Your task to perform on an android device: Open Yahoo.com Image 0: 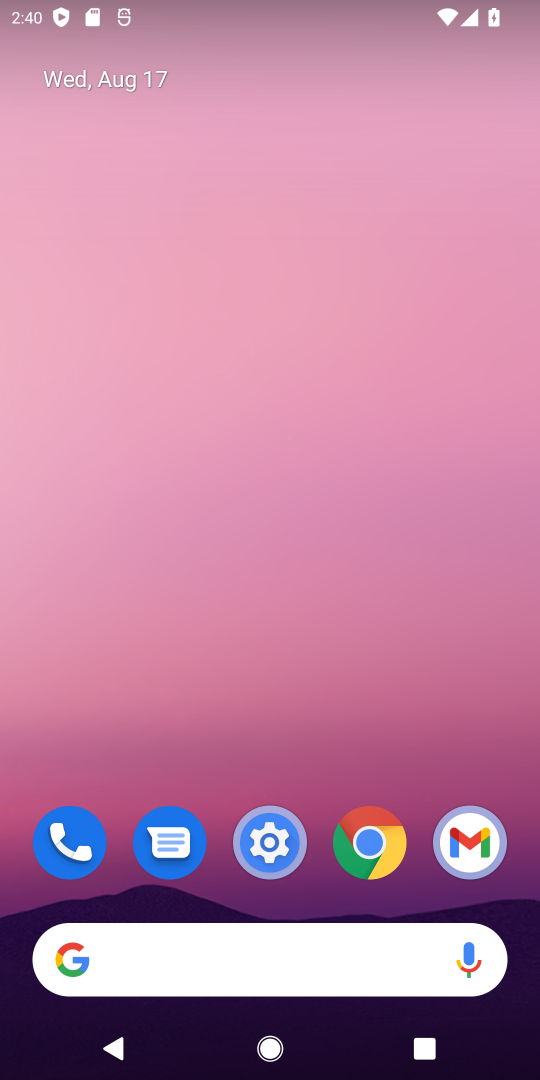
Step 0: drag from (515, 817) to (245, 44)
Your task to perform on an android device: Open Yahoo.com Image 1: 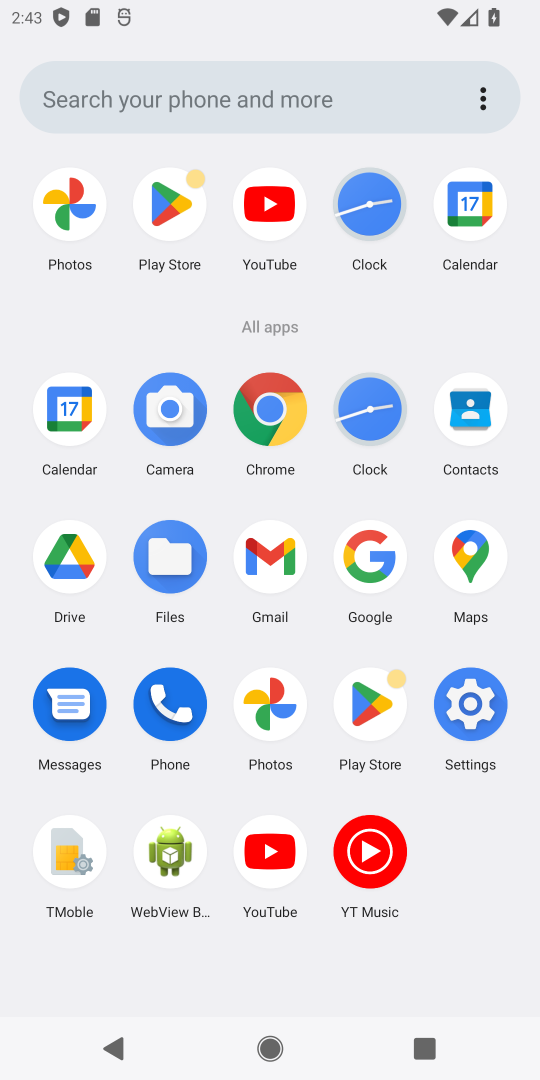
Step 1: click (374, 554)
Your task to perform on an android device: Open Yahoo.com Image 2: 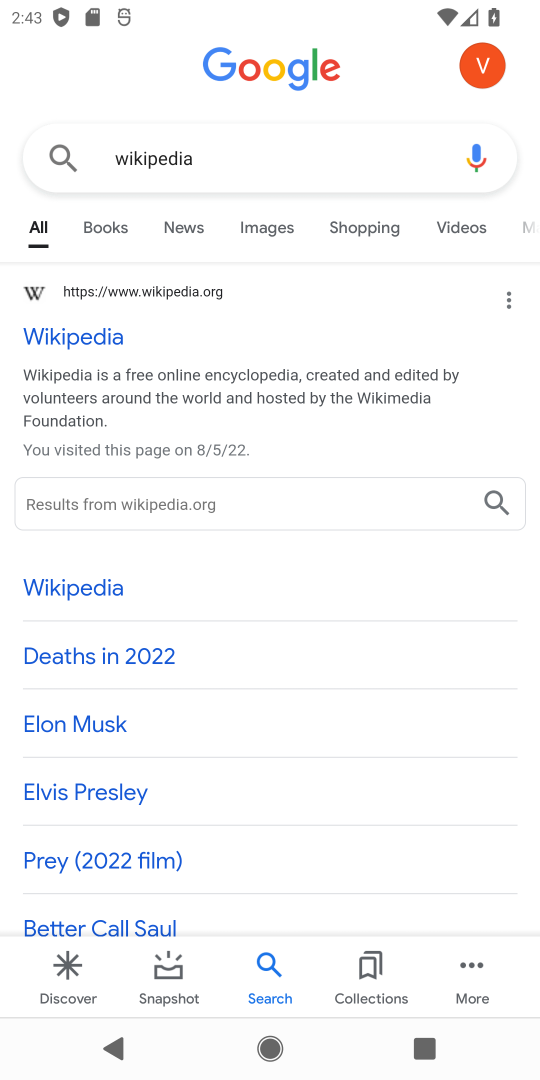
Step 2: press back button
Your task to perform on an android device: Open Yahoo.com Image 3: 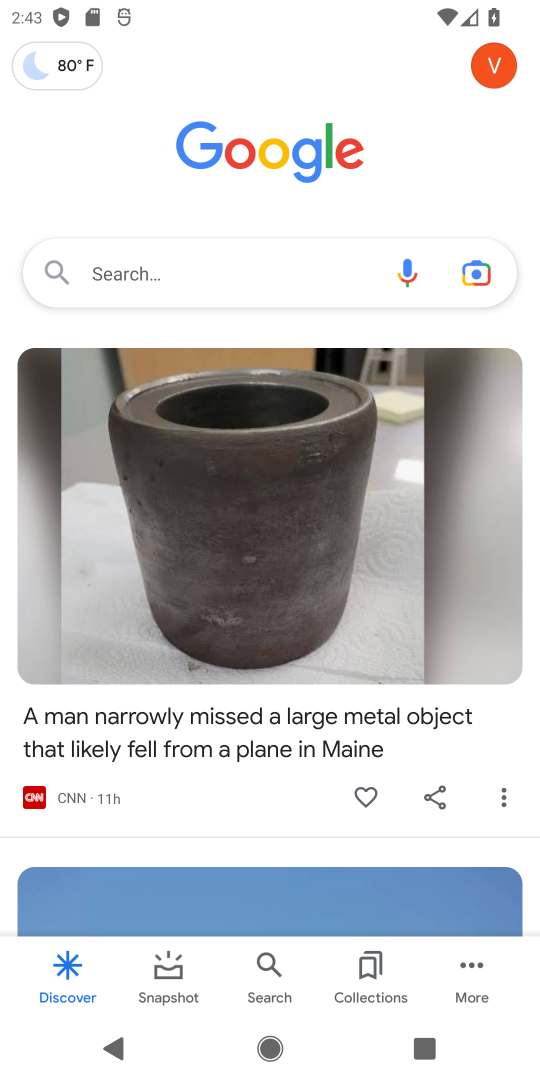
Step 3: click (109, 274)
Your task to perform on an android device: Open Yahoo.com Image 4: 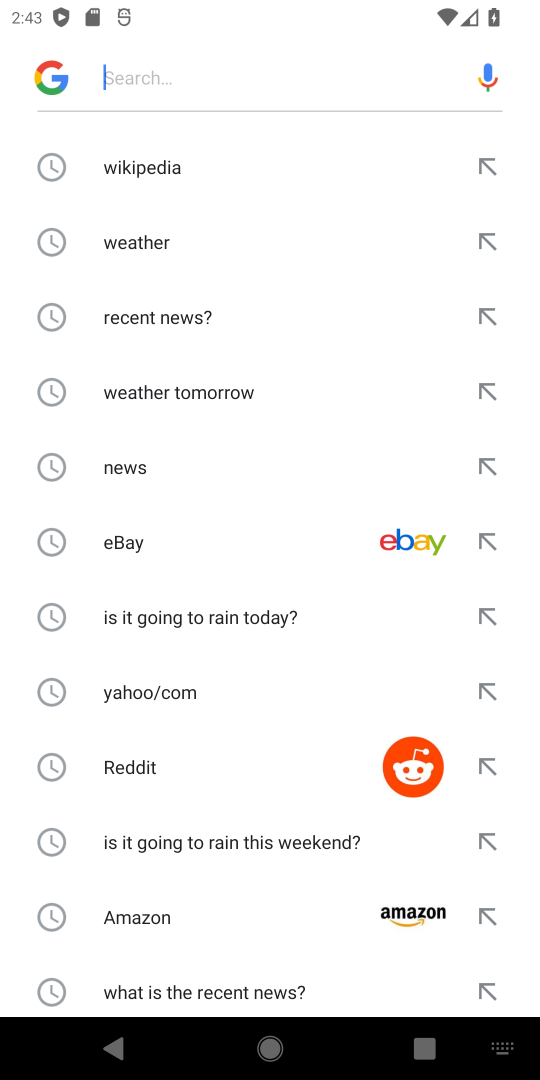
Step 4: type "Yahoo.com"
Your task to perform on an android device: Open Yahoo.com Image 5: 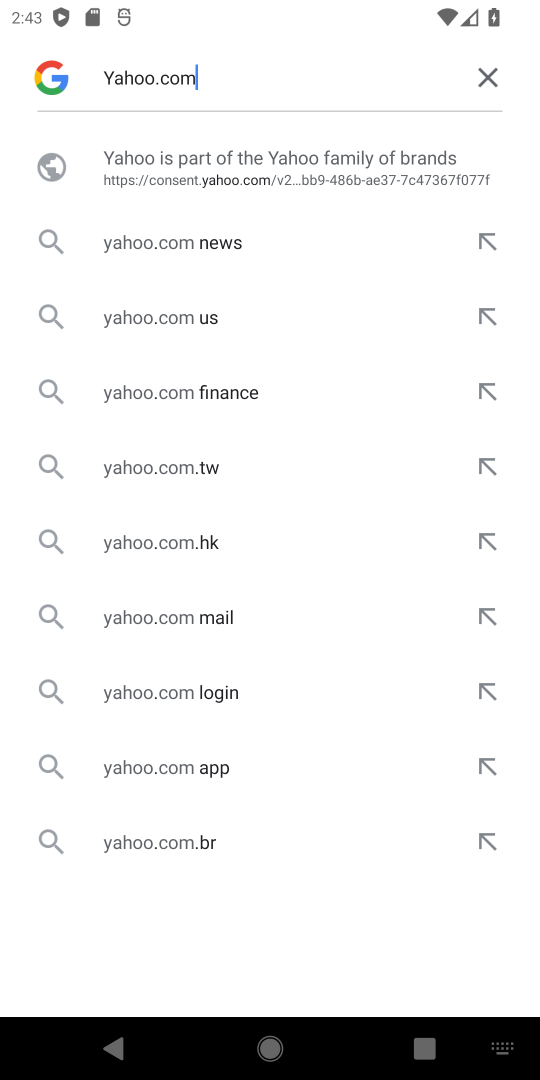
Step 5: click (135, 172)
Your task to perform on an android device: Open Yahoo.com Image 6: 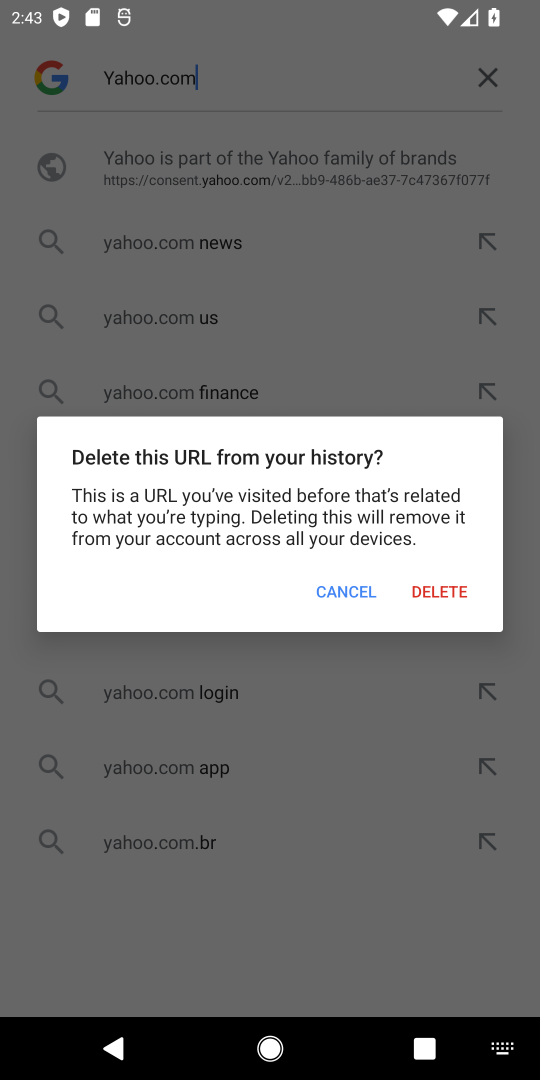
Step 6: click (353, 592)
Your task to perform on an android device: Open Yahoo.com Image 7: 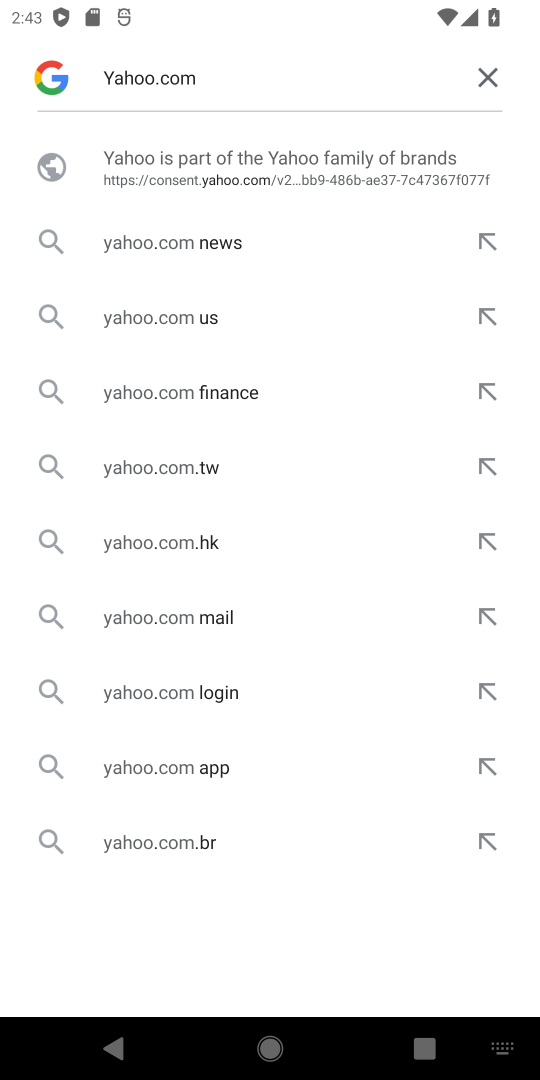
Step 7: click (194, 206)
Your task to perform on an android device: Open Yahoo.com Image 8: 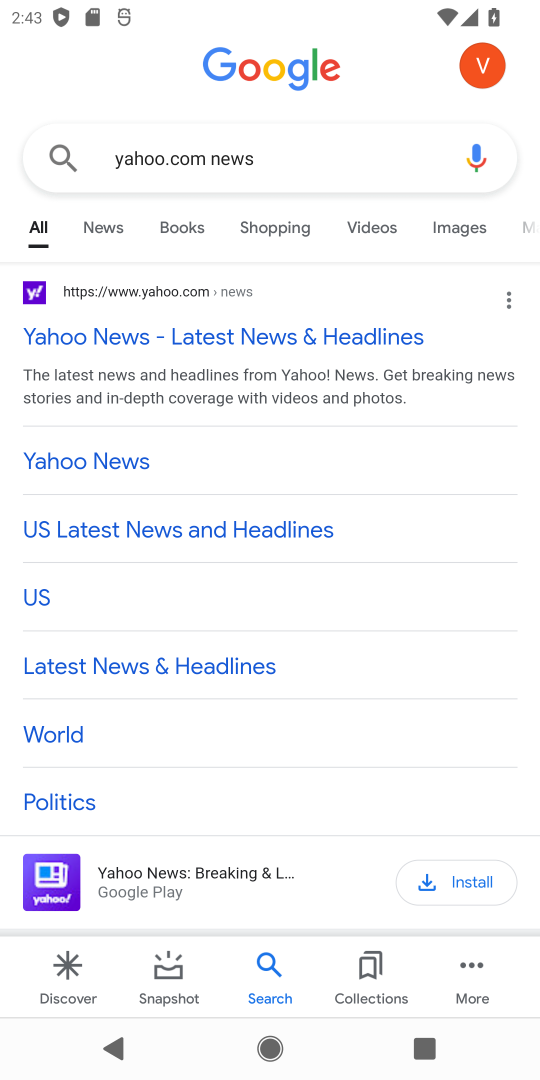
Step 8: task complete